Your task to perform on an android device: Go to internet settings Image 0: 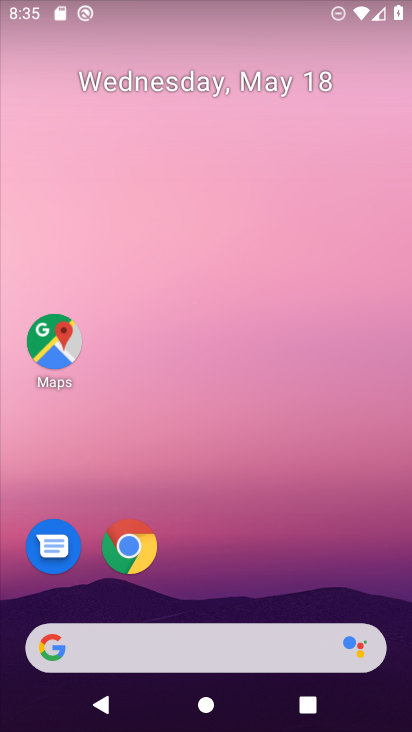
Step 0: drag from (267, 675) to (326, 126)
Your task to perform on an android device: Go to internet settings Image 1: 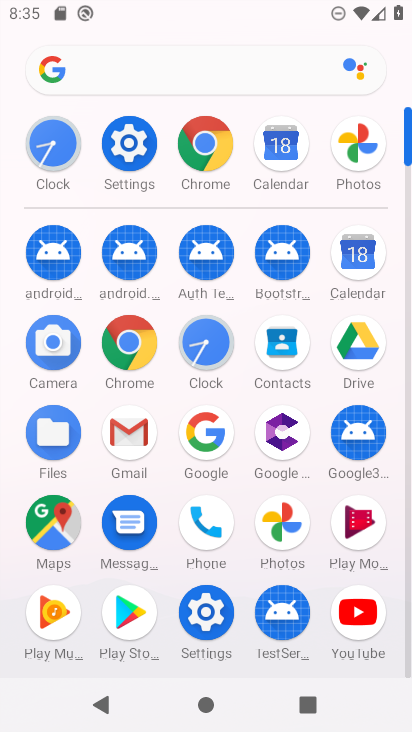
Step 1: click (188, 611)
Your task to perform on an android device: Go to internet settings Image 2: 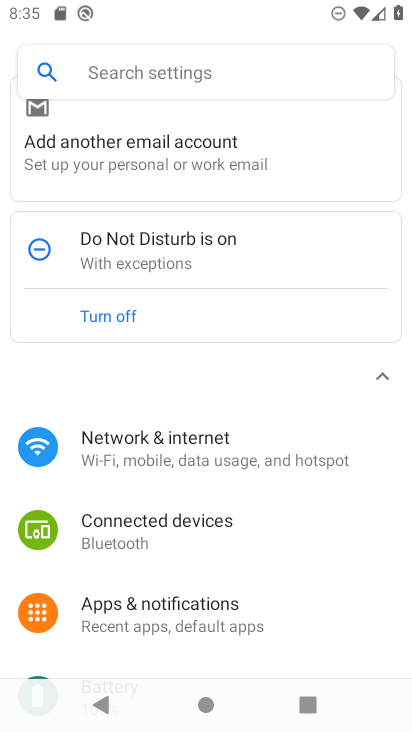
Step 2: click (177, 448)
Your task to perform on an android device: Go to internet settings Image 3: 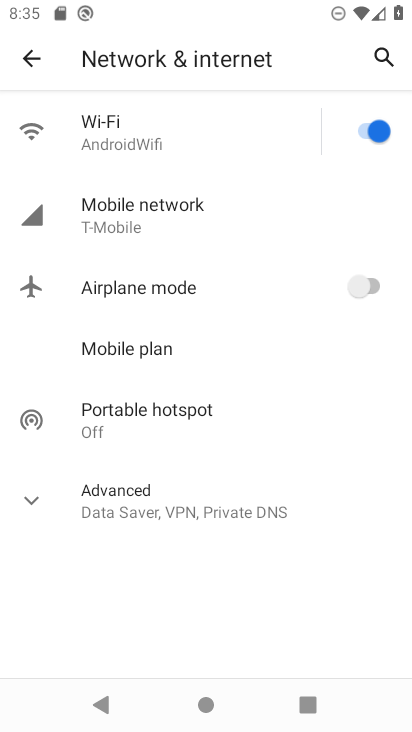
Step 3: task complete